Your task to perform on an android device: change text size in settings app Image 0: 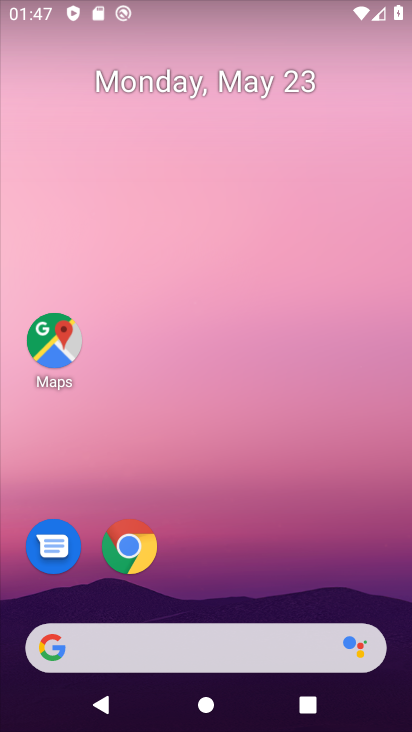
Step 0: drag from (220, 549) to (262, 61)
Your task to perform on an android device: change text size in settings app Image 1: 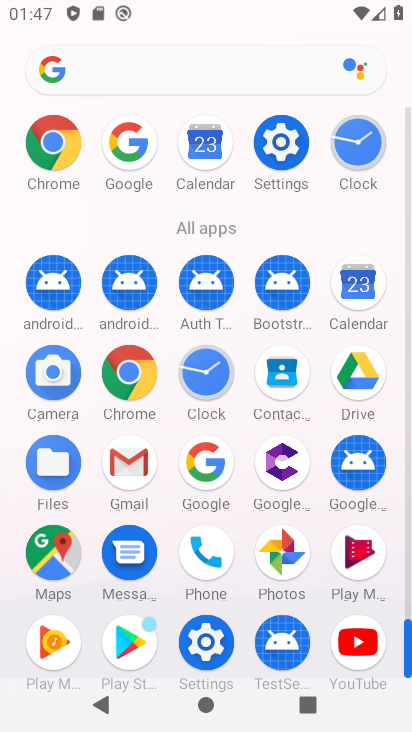
Step 1: click (285, 141)
Your task to perform on an android device: change text size in settings app Image 2: 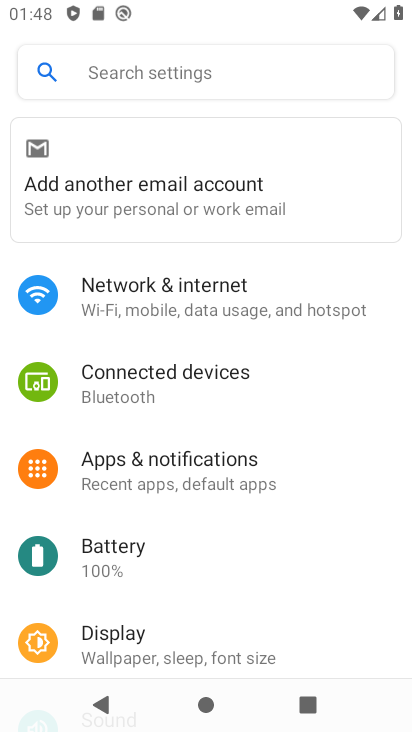
Step 2: click (120, 71)
Your task to perform on an android device: change text size in settings app Image 3: 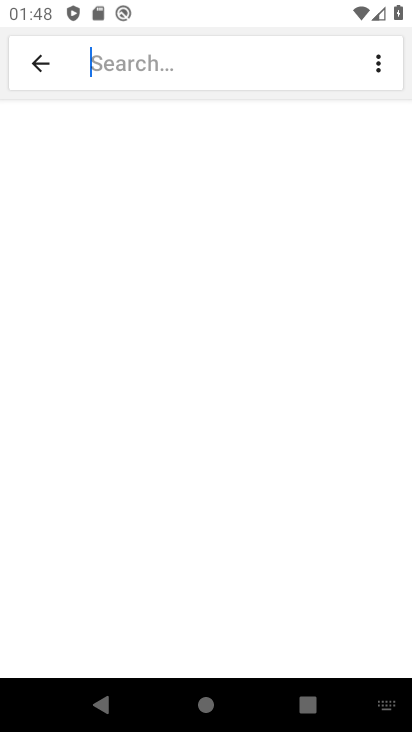
Step 3: type "text size"
Your task to perform on an android device: change text size in settings app Image 4: 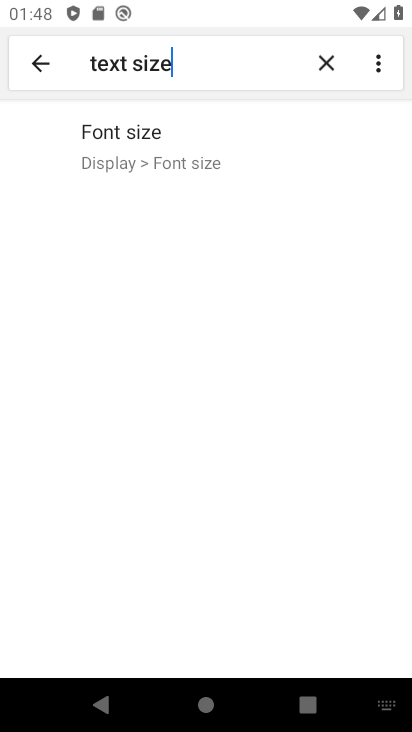
Step 4: click (171, 165)
Your task to perform on an android device: change text size in settings app Image 5: 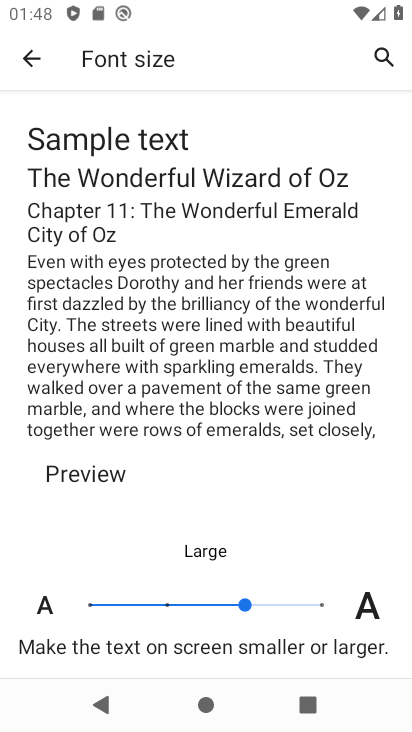
Step 5: task complete